Your task to perform on an android device: What is the recent news? Image 0: 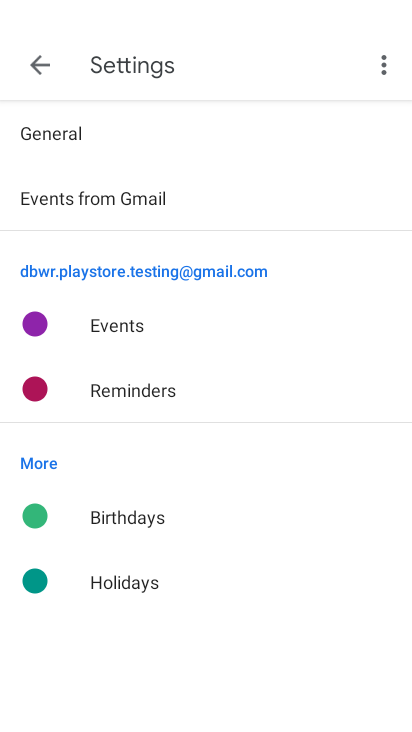
Step 0: press home button
Your task to perform on an android device: What is the recent news? Image 1: 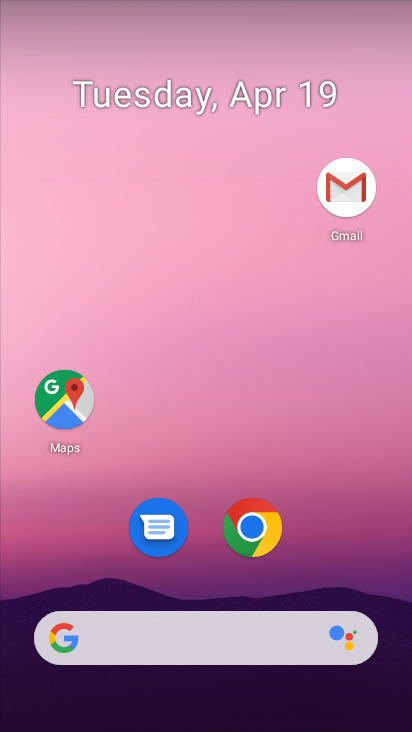
Step 1: click (271, 530)
Your task to perform on an android device: What is the recent news? Image 2: 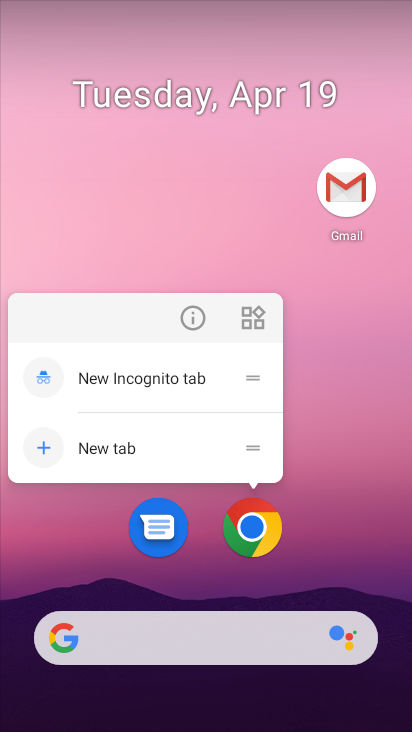
Step 2: drag from (348, 538) to (336, 101)
Your task to perform on an android device: What is the recent news? Image 3: 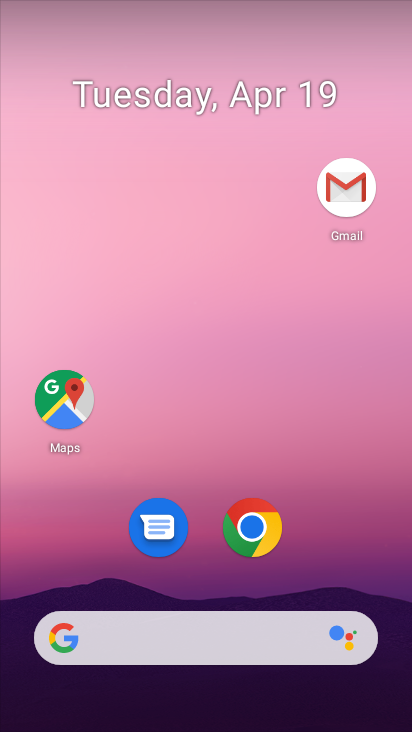
Step 3: drag from (342, 497) to (342, 93)
Your task to perform on an android device: What is the recent news? Image 4: 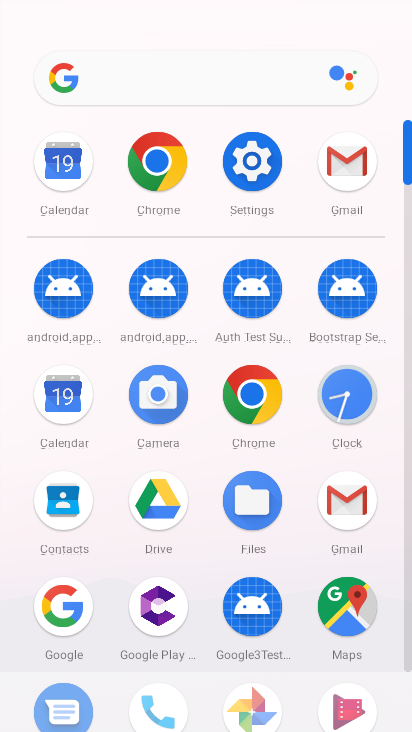
Step 4: click (158, 186)
Your task to perform on an android device: What is the recent news? Image 5: 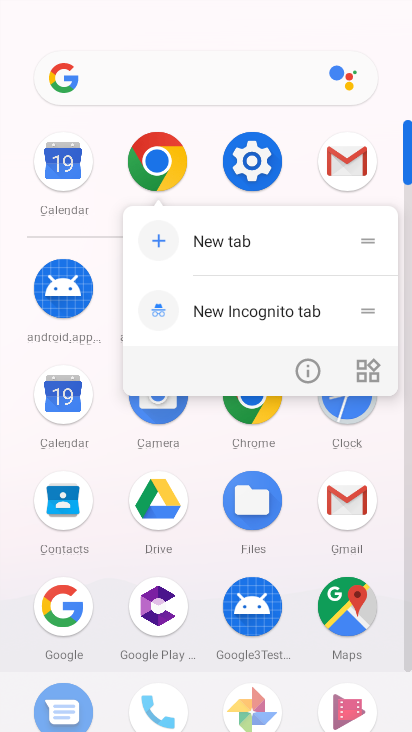
Step 5: click (163, 162)
Your task to perform on an android device: What is the recent news? Image 6: 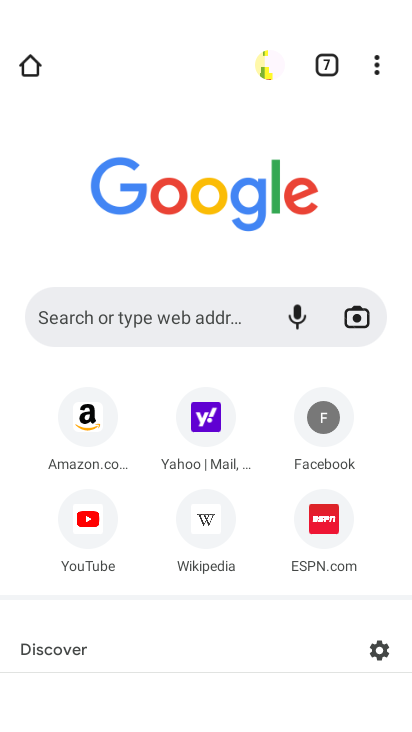
Step 6: click (188, 311)
Your task to perform on an android device: What is the recent news? Image 7: 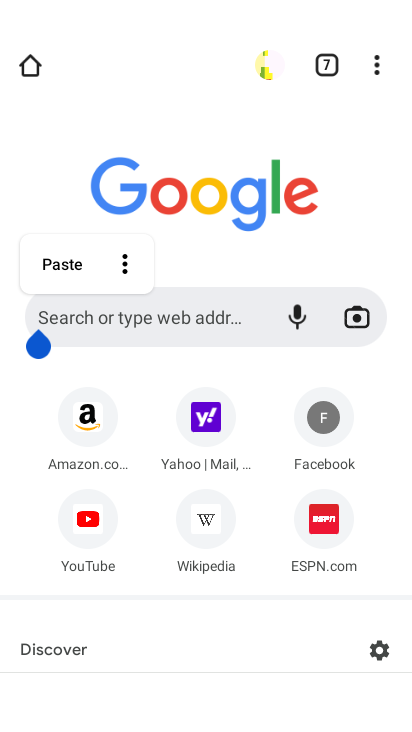
Step 7: click (243, 314)
Your task to perform on an android device: What is the recent news? Image 8: 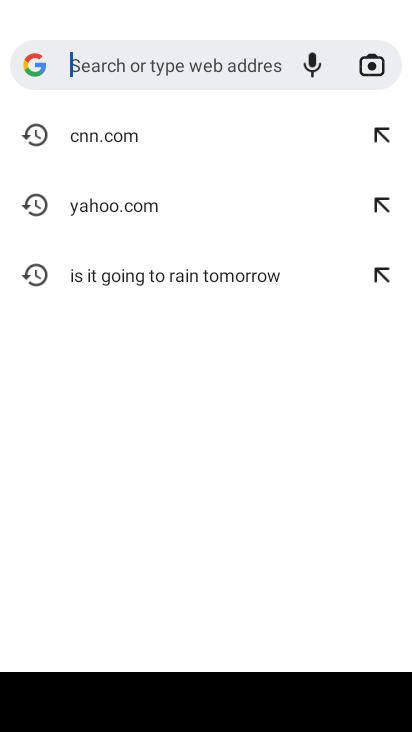
Step 8: type "recent news"
Your task to perform on an android device: What is the recent news? Image 9: 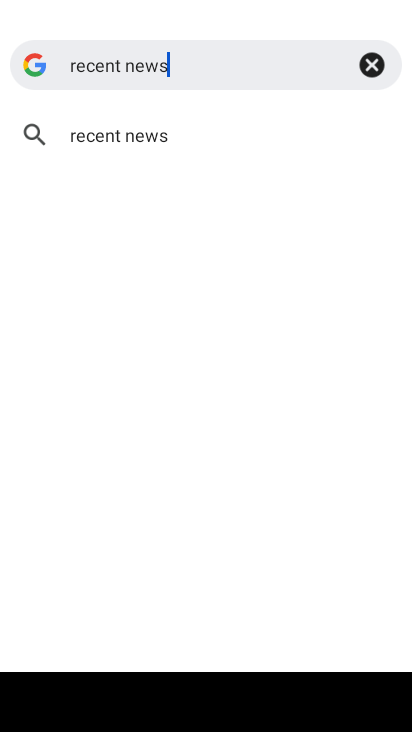
Step 9: click (101, 135)
Your task to perform on an android device: What is the recent news? Image 10: 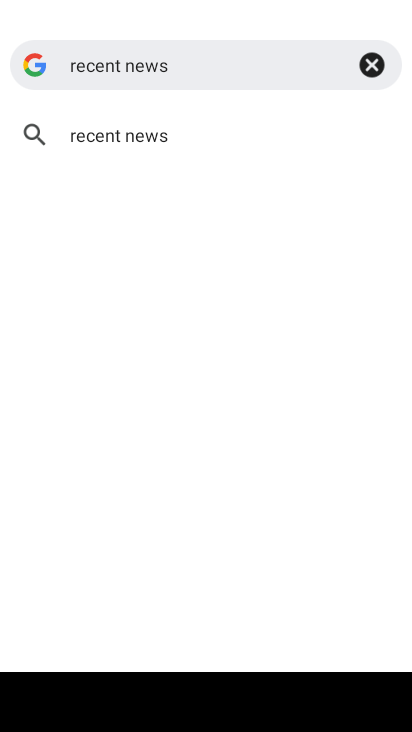
Step 10: click (105, 137)
Your task to perform on an android device: What is the recent news? Image 11: 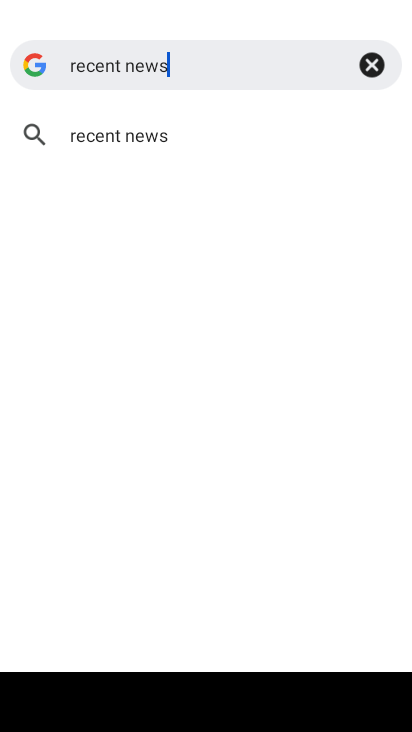
Step 11: click (166, 140)
Your task to perform on an android device: What is the recent news? Image 12: 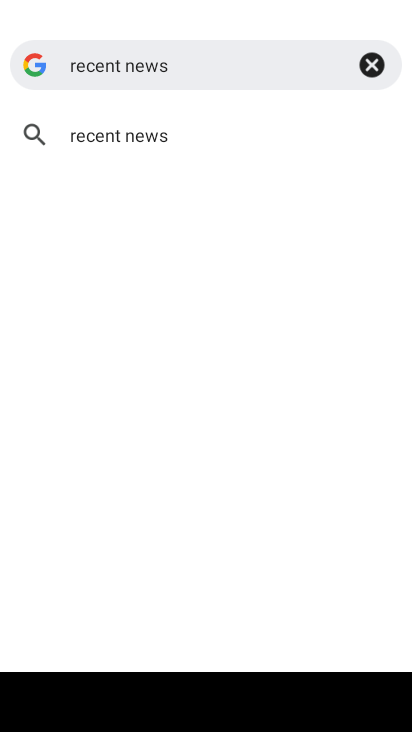
Step 12: click (166, 140)
Your task to perform on an android device: What is the recent news? Image 13: 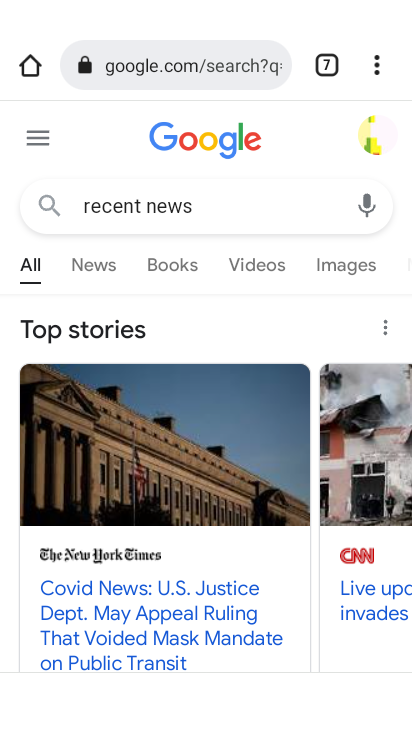
Step 13: click (199, 589)
Your task to perform on an android device: What is the recent news? Image 14: 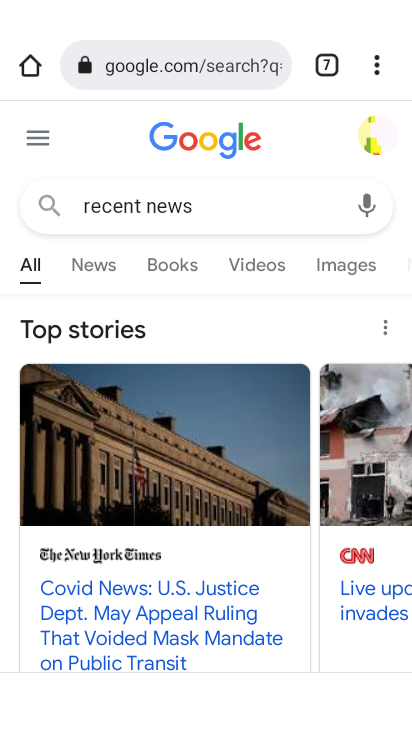
Step 14: click (200, 587)
Your task to perform on an android device: What is the recent news? Image 15: 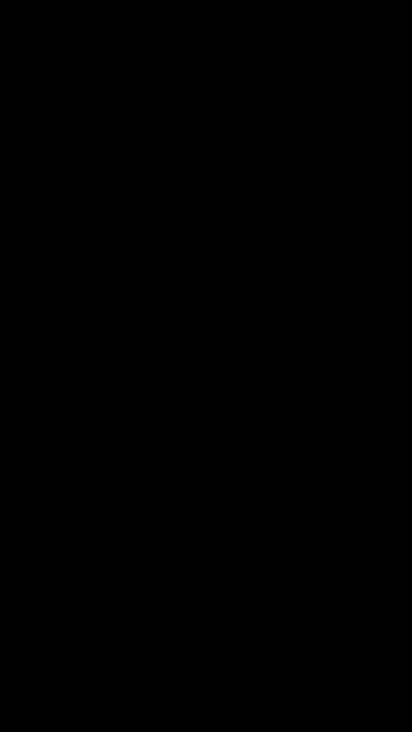
Step 15: click (140, 624)
Your task to perform on an android device: What is the recent news? Image 16: 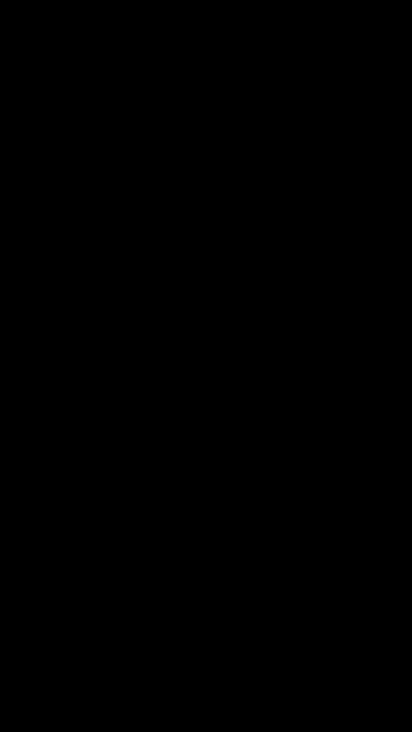
Step 16: task complete